Your task to perform on an android device: open app "Grab" Image 0: 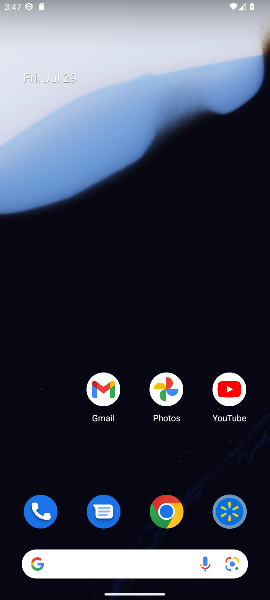
Step 0: drag from (122, 533) to (130, 99)
Your task to perform on an android device: open app "Grab" Image 1: 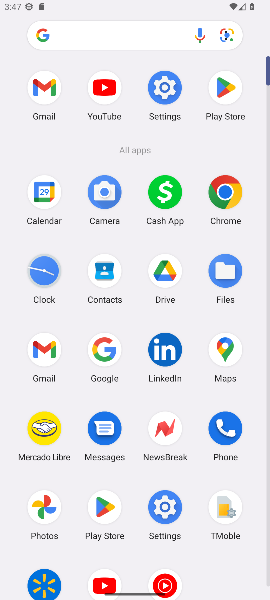
Step 1: click (111, 510)
Your task to perform on an android device: open app "Grab" Image 2: 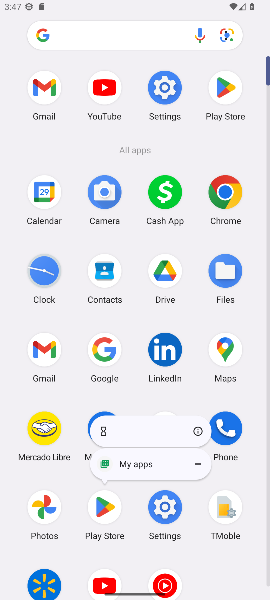
Step 2: click (103, 507)
Your task to perform on an android device: open app "Grab" Image 3: 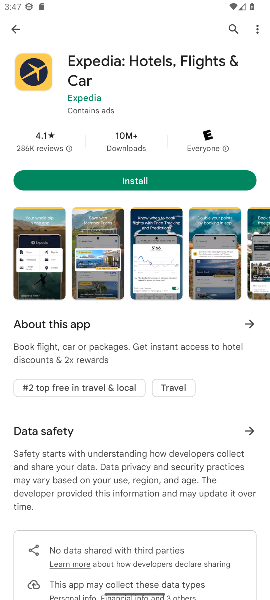
Step 3: click (16, 27)
Your task to perform on an android device: open app "Grab" Image 4: 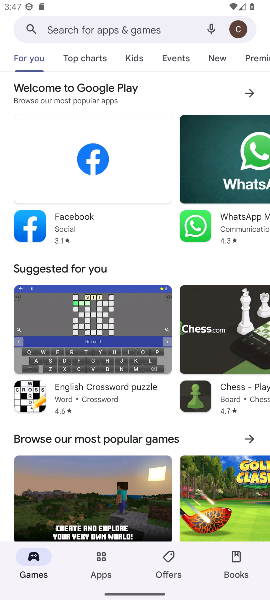
Step 4: click (83, 24)
Your task to perform on an android device: open app "Grab" Image 5: 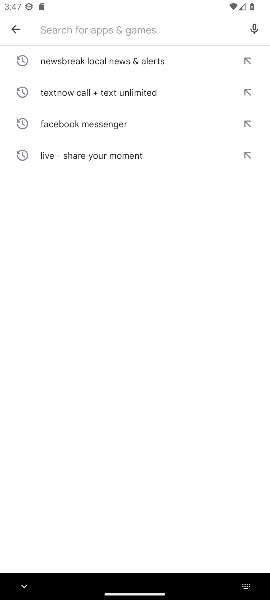
Step 5: type "grab"
Your task to perform on an android device: open app "Grab" Image 6: 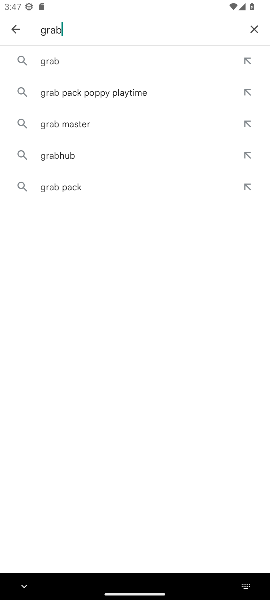
Step 6: click (55, 65)
Your task to perform on an android device: open app "Grab" Image 7: 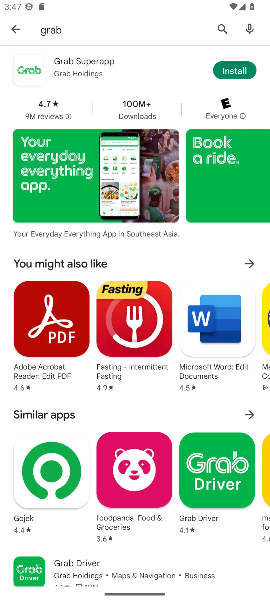
Step 7: click (227, 65)
Your task to perform on an android device: open app "Grab" Image 8: 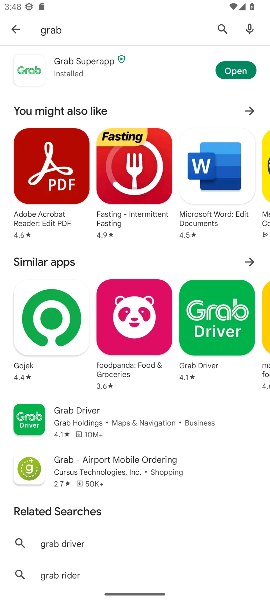
Step 8: click (236, 64)
Your task to perform on an android device: open app "Grab" Image 9: 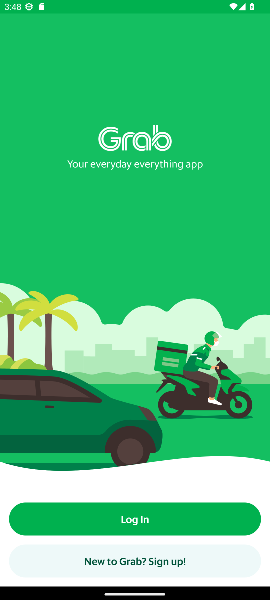
Step 9: task complete